Your task to perform on an android device: turn on javascript in the chrome app Image 0: 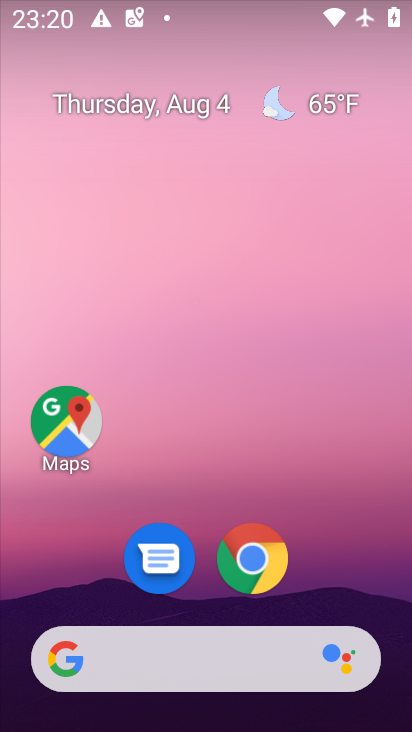
Step 0: drag from (339, 542) to (343, 81)
Your task to perform on an android device: turn on javascript in the chrome app Image 1: 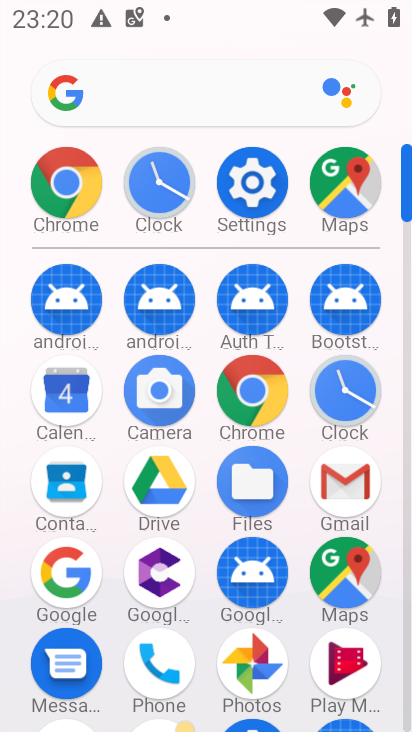
Step 1: click (253, 393)
Your task to perform on an android device: turn on javascript in the chrome app Image 2: 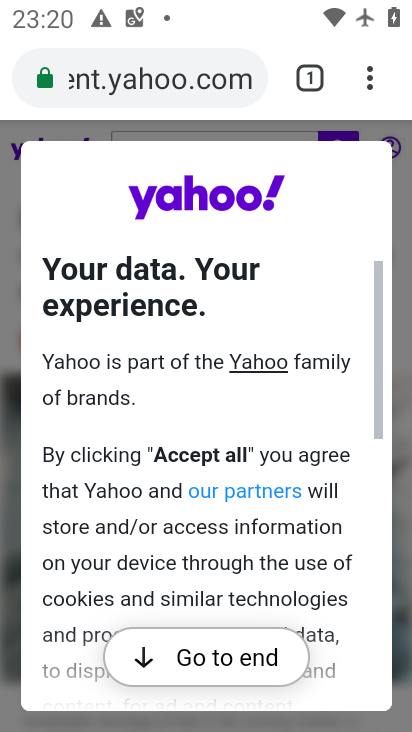
Step 2: drag from (365, 69) to (227, 623)
Your task to perform on an android device: turn on javascript in the chrome app Image 3: 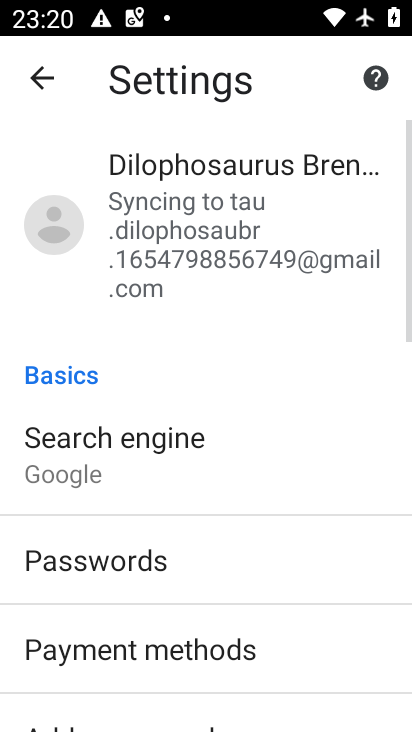
Step 3: drag from (292, 590) to (330, 143)
Your task to perform on an android device: turn on javascript in the chrome app Image 4: 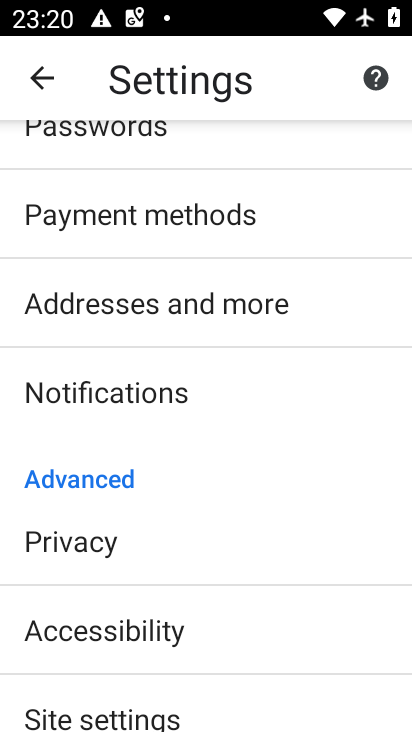
Step 4: drag from (258, 608) to (335, 206)
Your task to perform on an android device: turn on javascript in the chrome app Image 5: 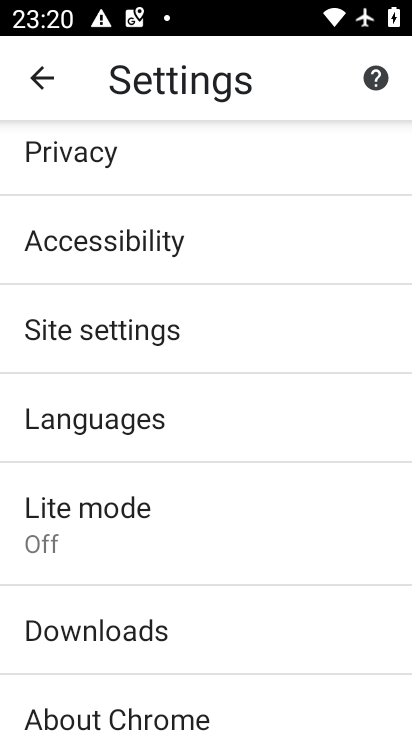
Step 5: click (73, 317)
Your task to perform on an android device: turn on javascript in the chrome app Image 6: 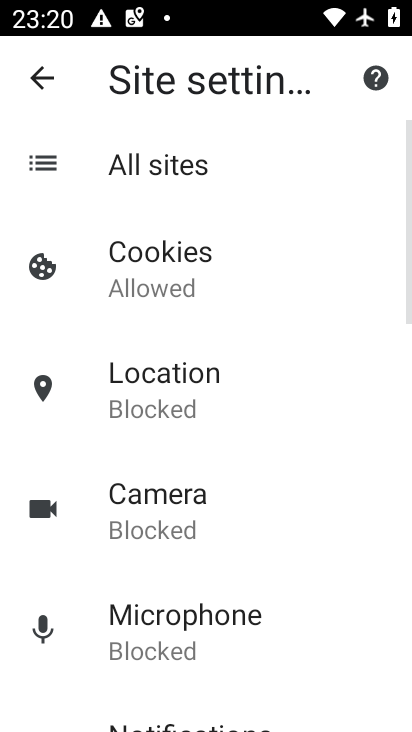
Step 6: drag from (296, 427) to (330, 153)
Your task to perform on an android device: turn on javascript in the chrome app Image 7: 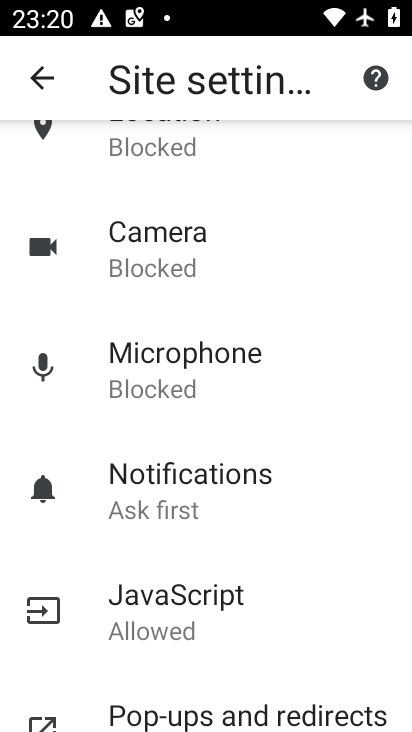
Step 7: click (202, 602)
Your task to perform on an android device: turn on javascript in the chrome app Image 8: 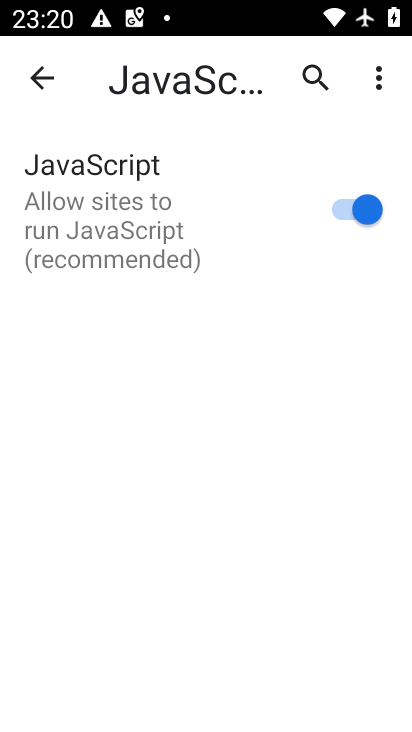
Step 8: task complete